Your task to perform on an android device: turn pop-ups on in chrome Image 0: 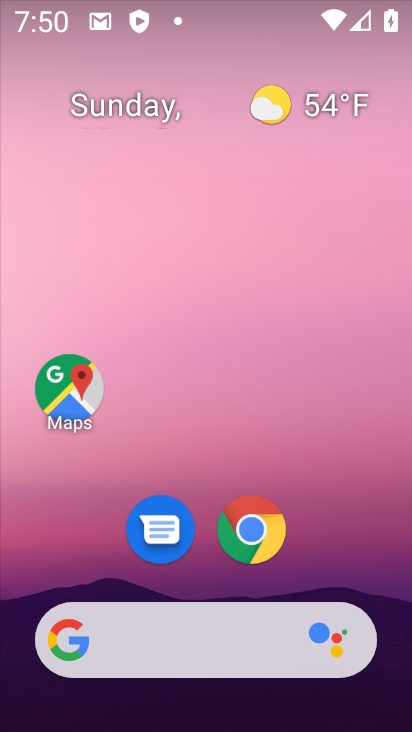
Step 0: click (265, 514)
Your task to perform on an android device: turn pop-ups on in chrome Image 1: 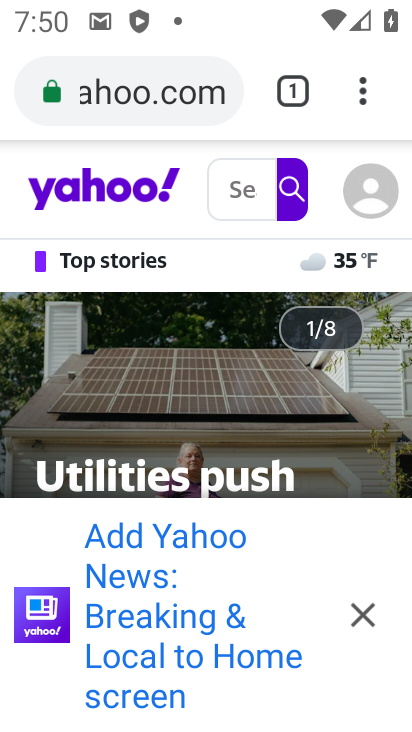
Step 1: click (366, 97)
Your task to perform on an android device: turn pop-ups on in chrome Image 2: 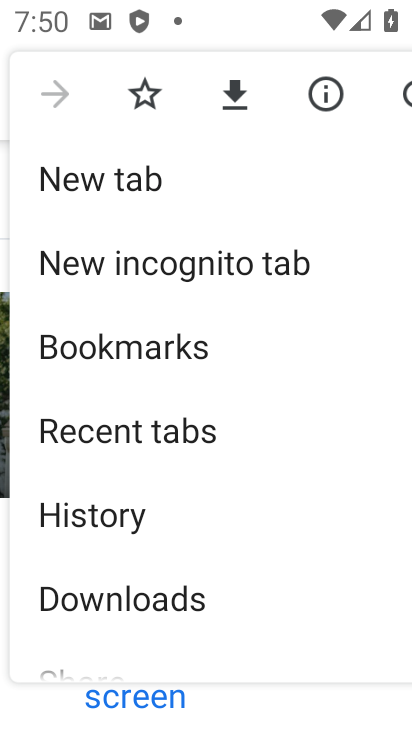
Step 2: drag from (167, 584) to (210, 238)
Your task to perform on an android device: turn pop-ups on in chrome Image 3: 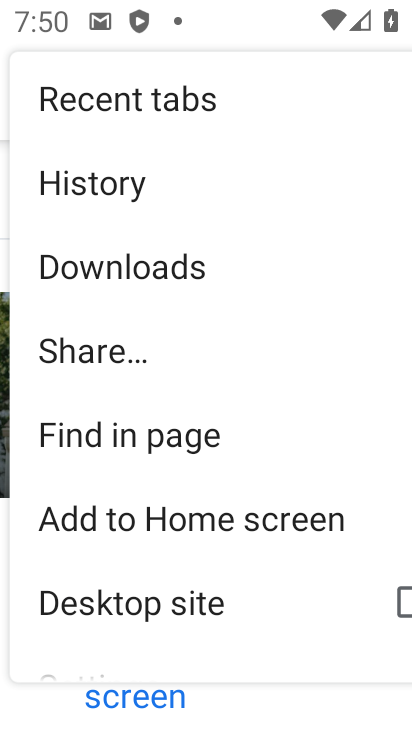
Step 3: drag from (141, 556) to (210, 259)
Your task to perform on an android device: turn pop-ups on in chrome Image 4: 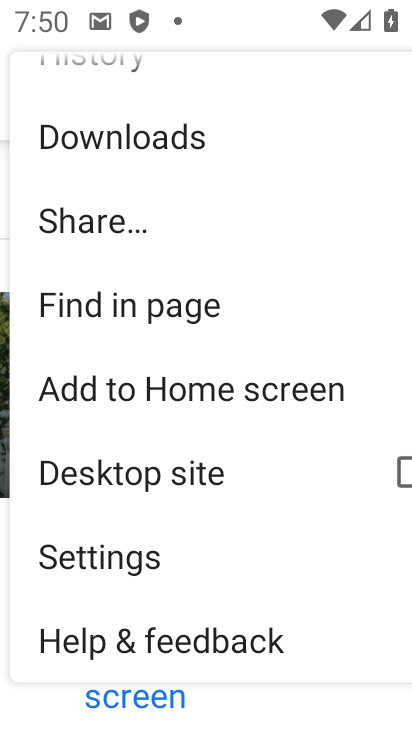
Step 4: click (111, 557)
Your task to perform on an android device: turn pop-ups on in chrome Image 5: 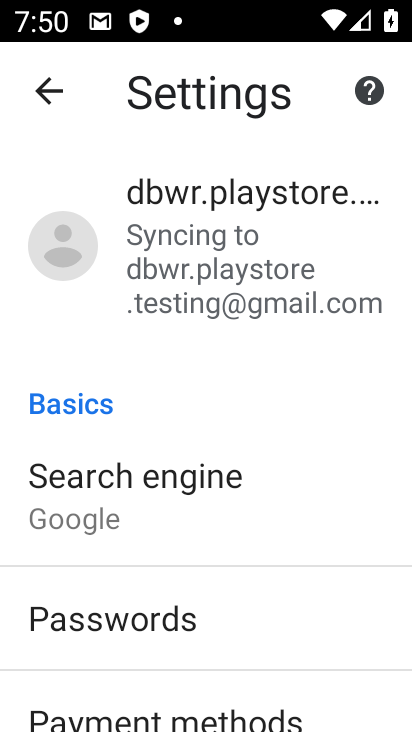
Step 5: drag from (181, 619) to (207, 348)
Your task to perform on an android device: turn pop-ups on in chrome Image 6: 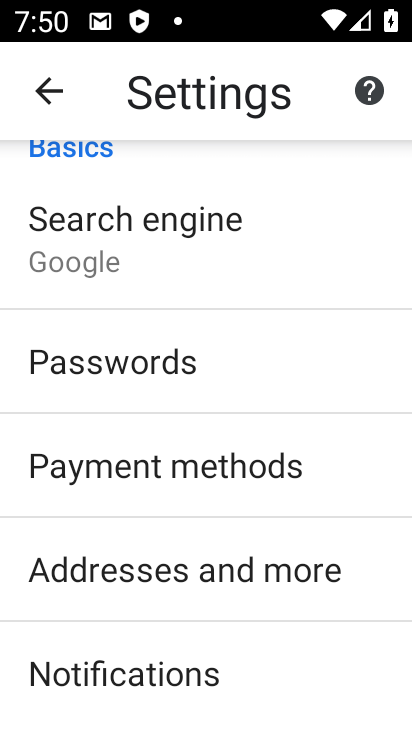
Step 6: drag from (123, 641) to (197, 331)
Your task to perform on an android device: turn pop-ups on in chrome Image 7: 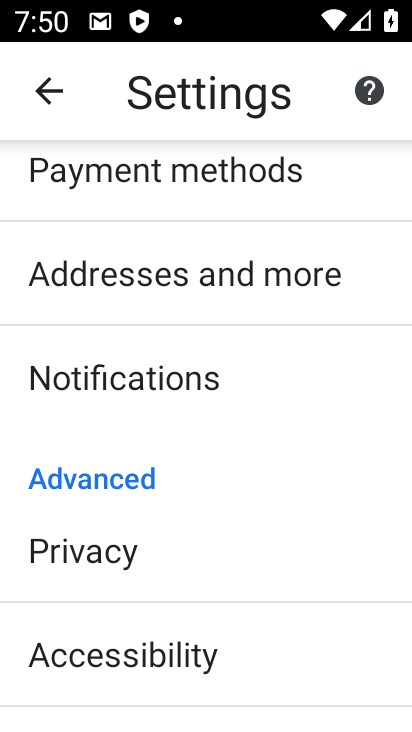
Step 7: drag from (127, 583) to (170, 271)
Your task to perform on an android device: turn pop-ups on in chrome Image 8: 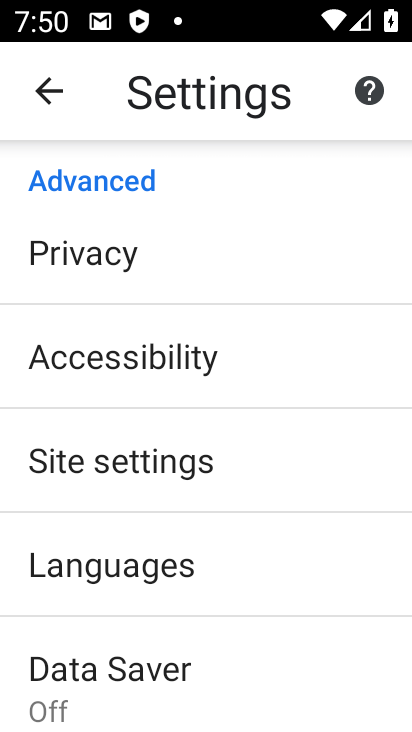
Step 8: click (133, 479)
Your task to perform on an android device: turn pop-ups on in chrome Image 9: 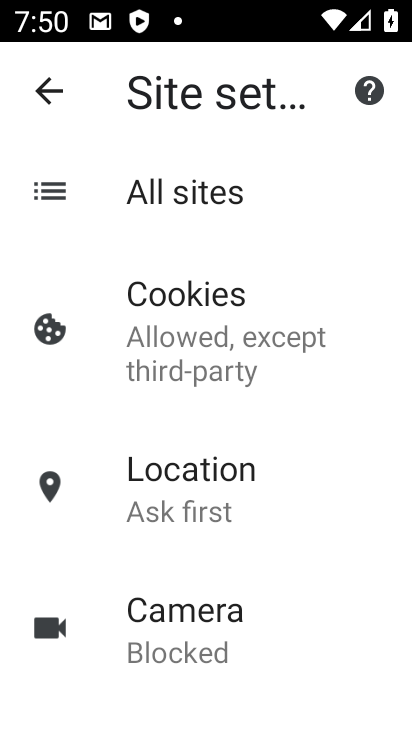
Step 9: drag from (146, 546) to (178, 376)
Your task to perform on an android device: turn pop-ups on in chrome Image 10: 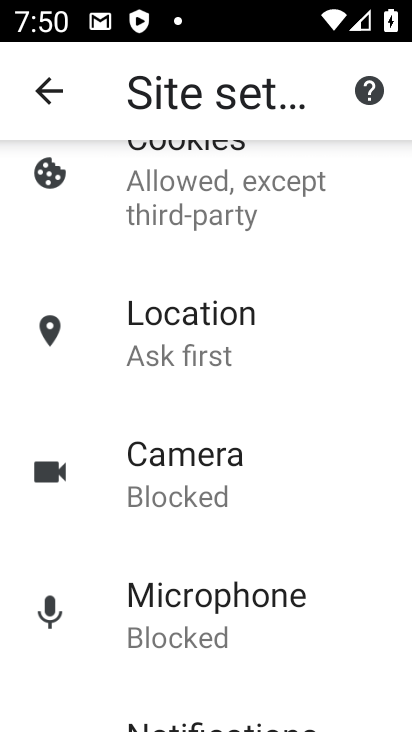
Step 10: drag from (161, 569) to (230, 117)
Your task to perform on an android device: turn pop-ups on in chrome Image 11: 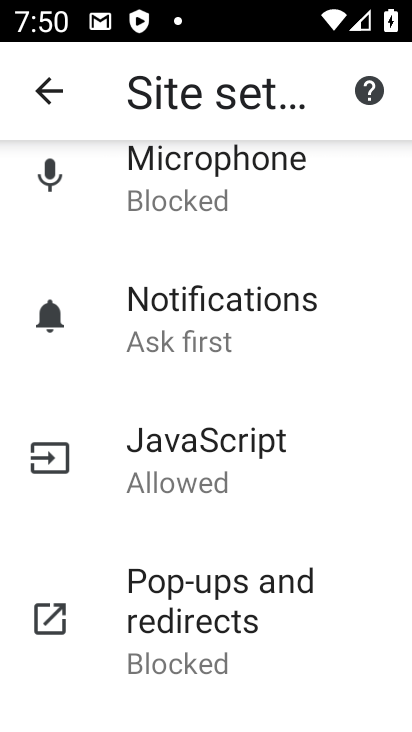
Step 11: drag from (223, 598) to (225, 402)
Your task to perform on an android device: turn pop-ups on in chrome Image 12: 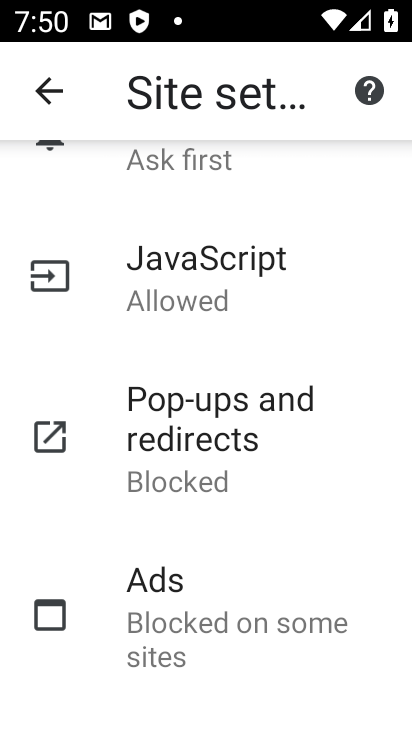
Step 12: click (168, 468)
Your task to perform on an android device: turn pop-ups on in chrome Image 13: 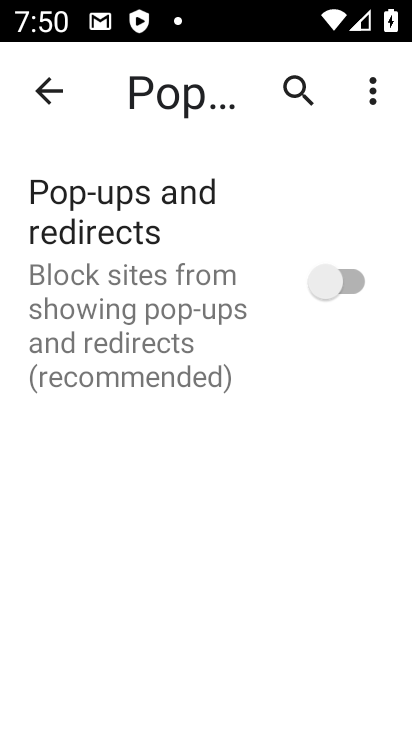
Step 13: click (346, 291)
Your task to perform on an android device: turn pop-ups on in chrome Image 14: 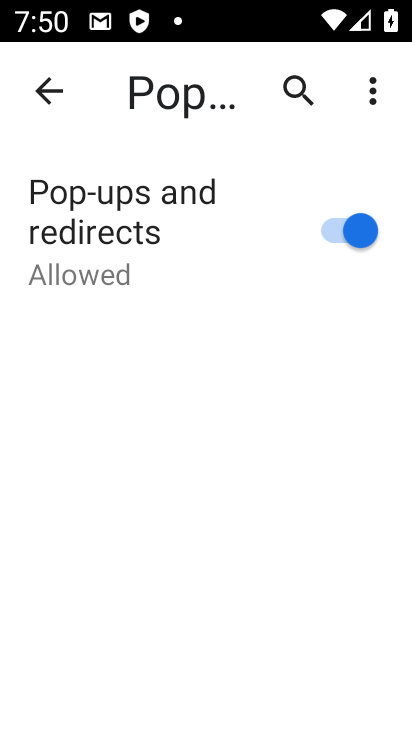
Step 14: task complete